Your task to perform on an android device: find photos in the google photos app Image 0: 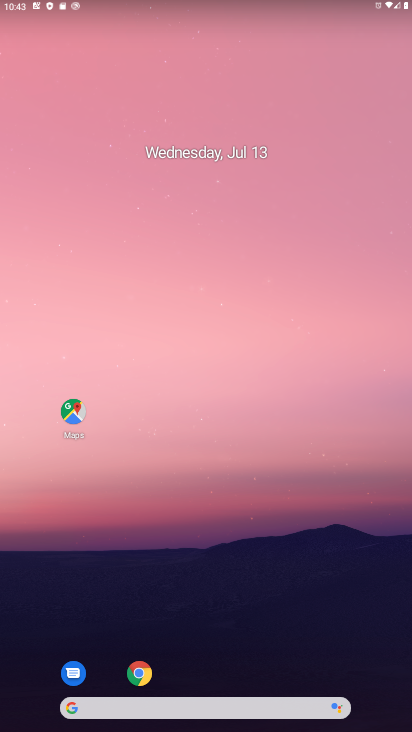
Step 0: drag from (237, 664) to (229, 125)
Your task to perform on an android device: find photos in the google photos app Image 1: 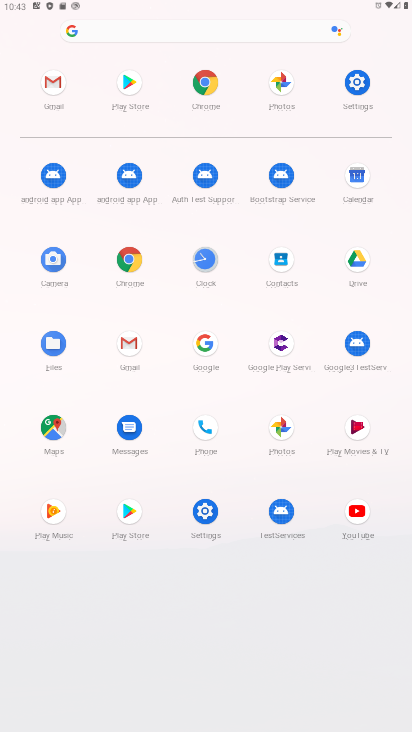
Step 1: click (288, 83)
Your task to perform on an android device: find photos in the google photos app Image 2: 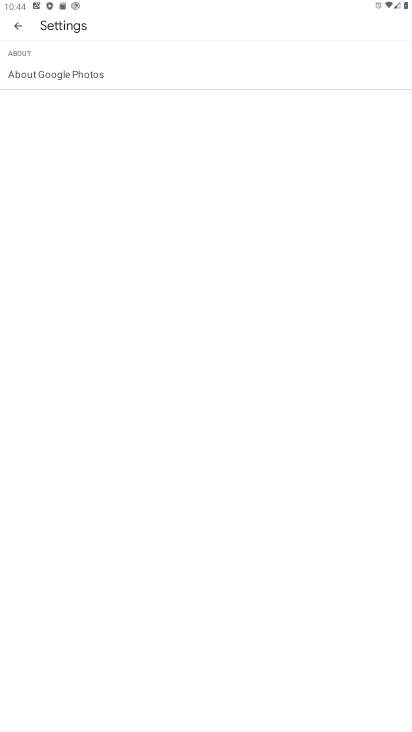
Step 2: click (18, 25)
Your task to perform on an android device: find photos in the google photos app Image 3: 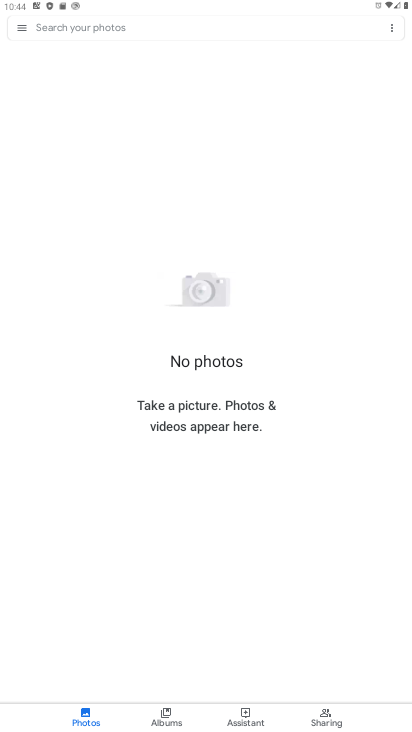
Step 3: task complete